Your task to perform on an android device: View the shopping cart on newegg. Search for logitech g pro on newegg, select the first entry, add it to the cart, then select checkout. Image 0: 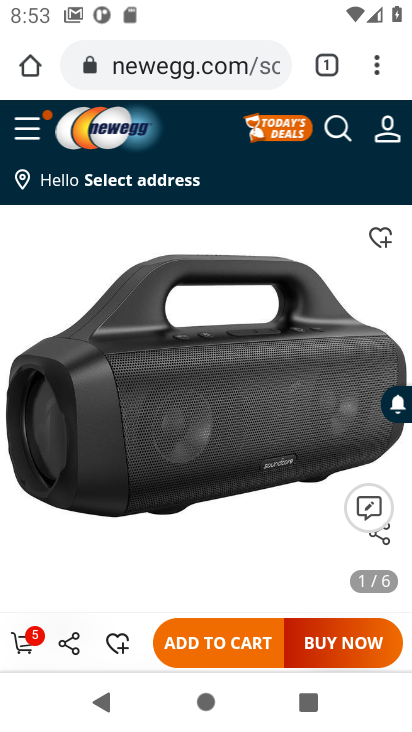
Step 0: click (23, 642)
Your task to perform on an android device: View the shopping cart on newegg. Search for logitech g pro on newegg, select the first entry, add it to the cart, then select checkout. Image 1: 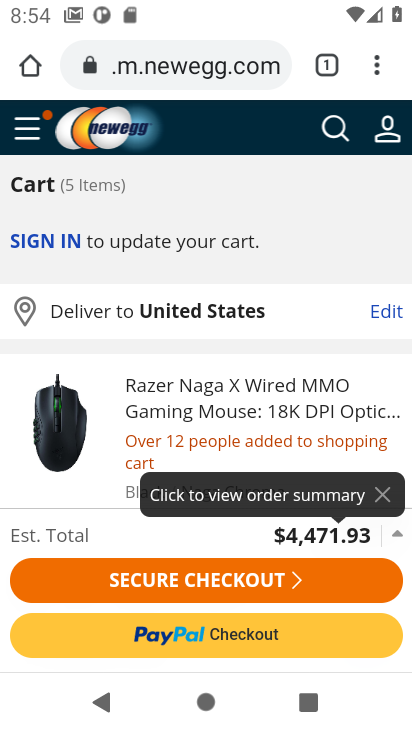
Step 1: click (331, 119)
Your task to perform on an android device: View the shopping cart on newegg. Search for logitech g pro on newegg, select the first entry, add it to the cart, then select checkout. Image 2: 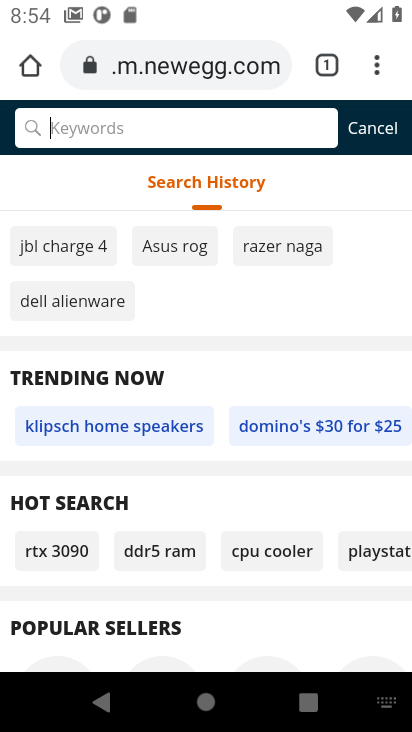
Step 2: type " logitech g pro"
Your task to perform on an android device: View the shopping cart on newegg. Search for logitech g pro on newegg, select the first entry, add it to the cart, then select checkout. Image 3: 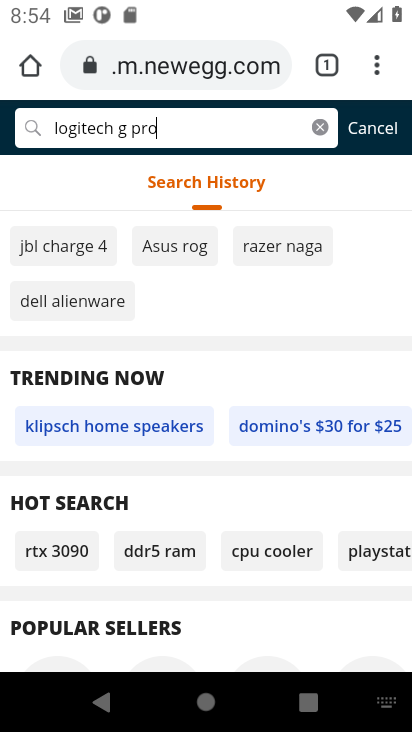
Step 3: press enter
Your task to perform on an android device: View the shopping cart on newegg. Search for logitech g pro on newegg, select the first entry, add it to the cart, then select checkout. Image 4: 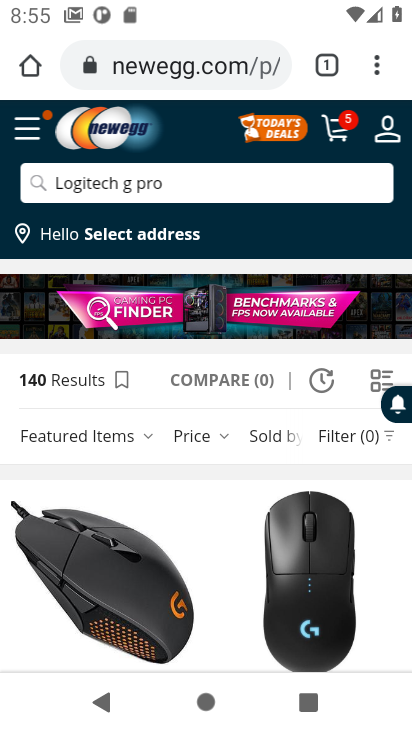
Step 4: drag from (163, 530) to (149, 267)
Your task to perform on an android device: View the shopping cart on newegg. Search for logitech g pro on newegg, select the first entry, add it to the cart, then select checkout. Image 5: 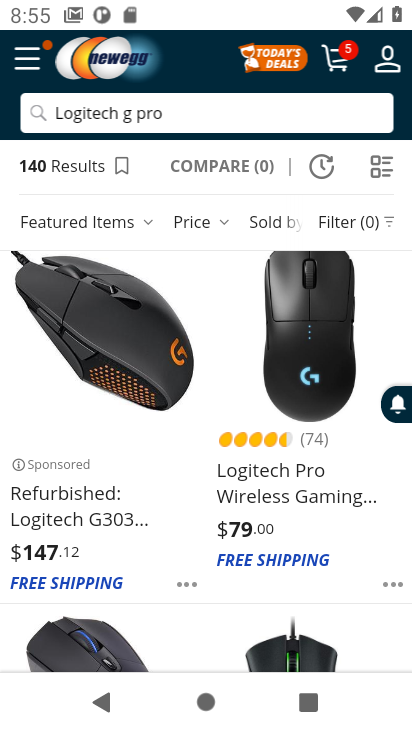
Step 5: click (97, 512)
Your task to perform on an android device: View the shopping cart on newegg. Search for logitech g pro on newegg, select the first entry, add it to the cart, then select checkout. Image 6: 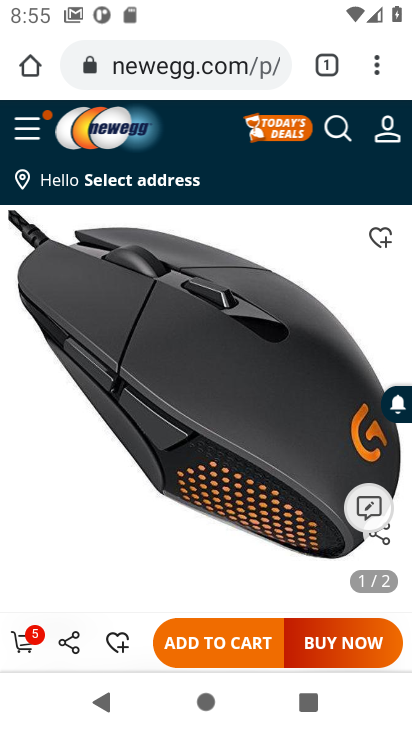
Step 6: click (248, 630)
Your task to perform on an android device: View the shopping cart on newegg. Search for logitech g pro on newegg, select the first entry, add it to the cart, then select checkout. Image 7: 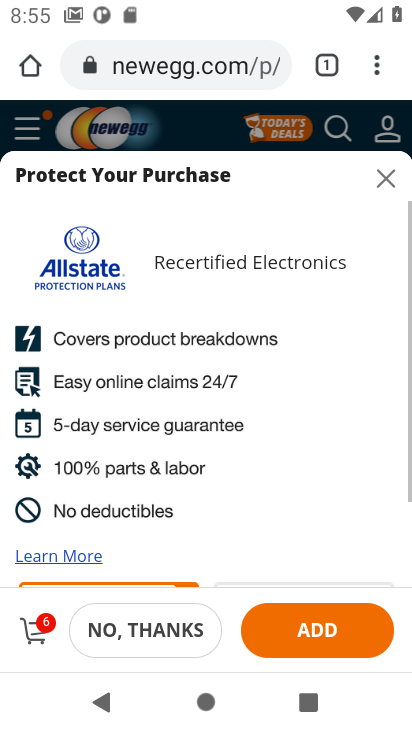
Step 7: click (399, 181)
Your task to perform on an android device: View the shopping cart on newegg. Search for logitech g pro on newegg, select the first entry, add it to the cart, then select checkout. Image 8: 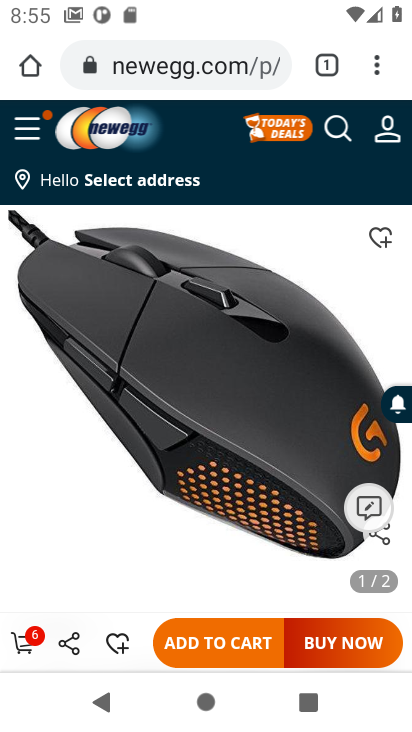
Step 8: click (192, 651)
Your task to perform on an android device: View the shopping cart on newegg. Search for logitech g pro on newegg, select the first entry, add it to the cart, then select checkout. Image 9: 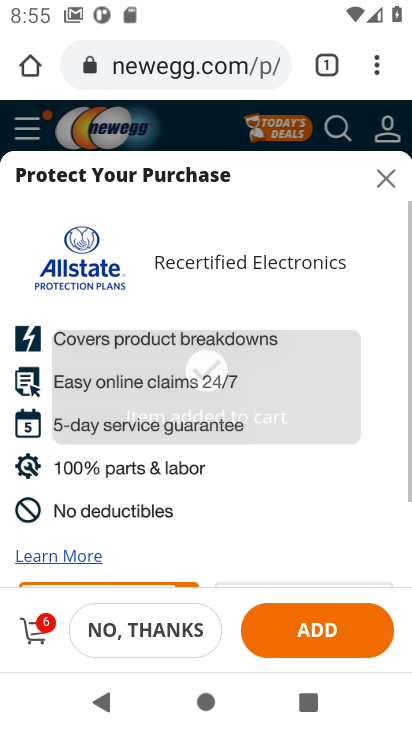
Step 9: click (325, 632)
Your task to perform on an android device: View the shopping cart on newegg. Search for logitech g pro on newegg, select the first entry, add it to the cart, then select checkout. Image 10: 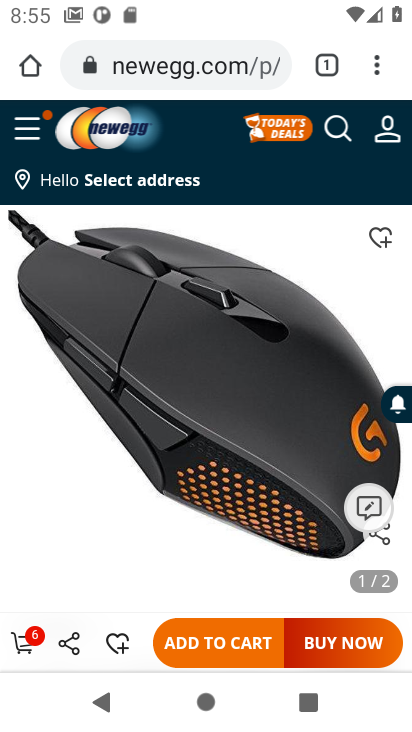
Step 10: click (30, 646)
Your task to perform on an android device: View the shopping cart on newegg. Search for logitech g pro on newegg, select the first entry, add it to the cart, then select checkout. Image 11: 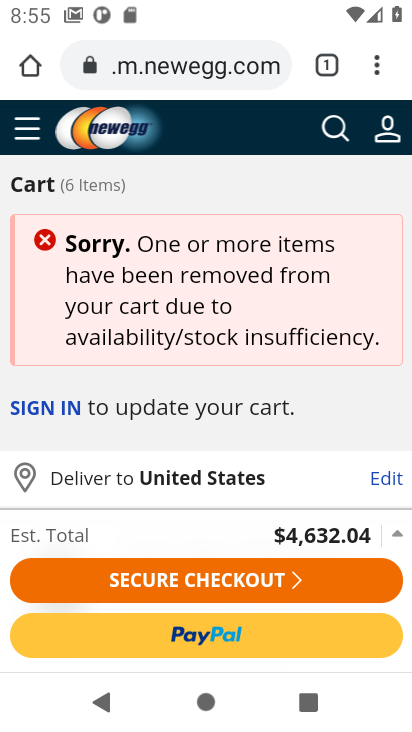
Step 11: click (136, 629)
Your task to perform on an android device: View the shopping cart on newegg. Search for logitech g pro on newegg, select the first entry, add it to the cart, then select checkout. Image 12: 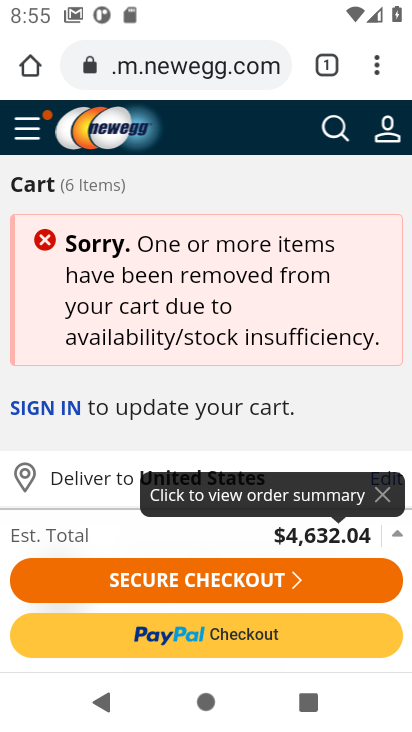
Step 12: task complete